Your task to perform on an android device: Go to calendar. Show me events next week Image 0: 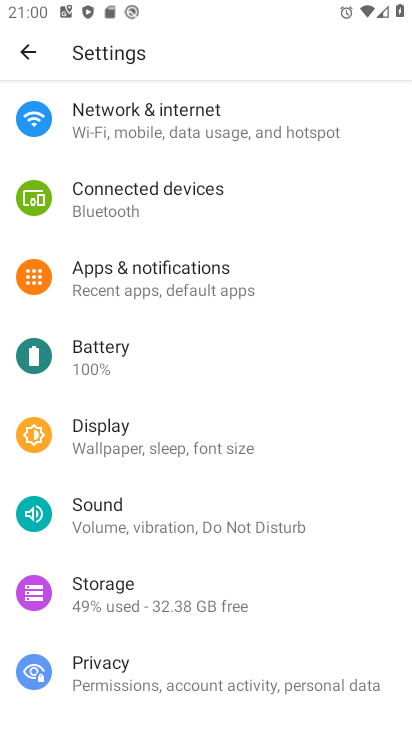
Step 0: press home button
Your task to perform on an android device: Go to calendar. Show me events next week Image 1: 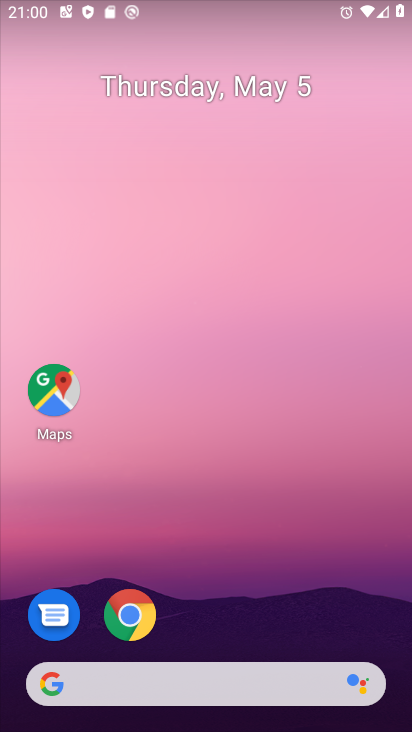
Step 1: drag from (210, 627) to (233, 7)
Your task to perform on an android device: Go to calendar. Show me events next week Image 2: 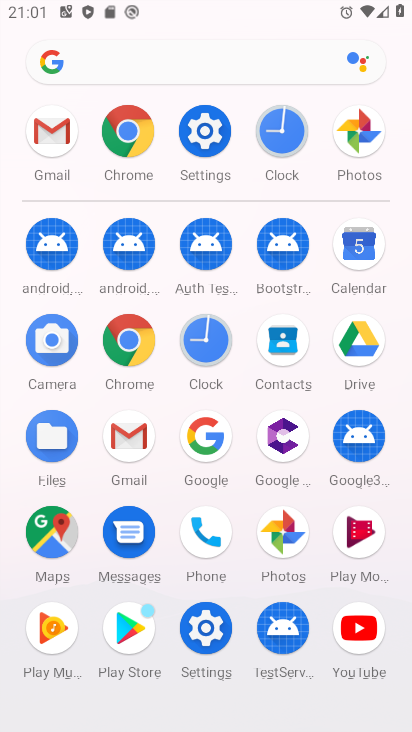
Step 2: click (363, 254)
Your task to perform on an android device: Go to calendar. Show me events next week Image 3: 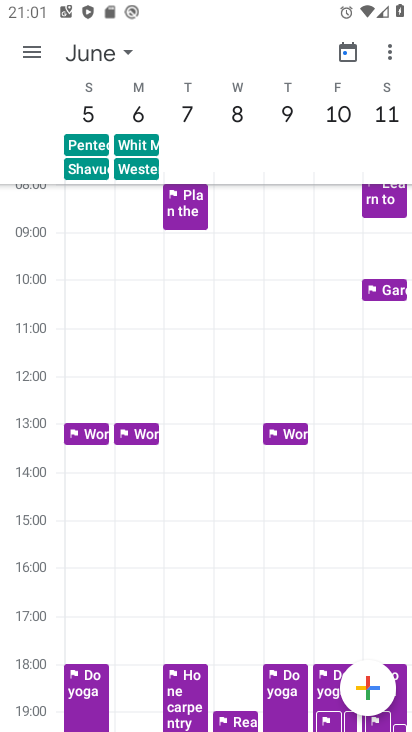
Step 3: click (106, 51)
Your task to perform on an android device: Go to calendar. Show me events next week Image 4: 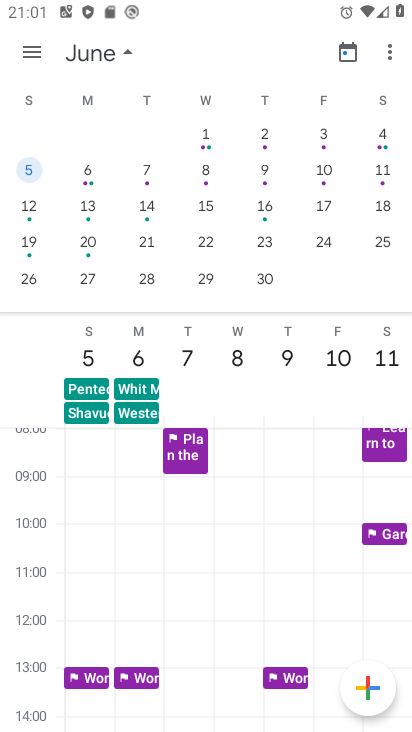
Step 4: drag from (71, 219) to (396, 288)
Your task to perform on an android device: Go to calendar. Show me events next week Image 5: 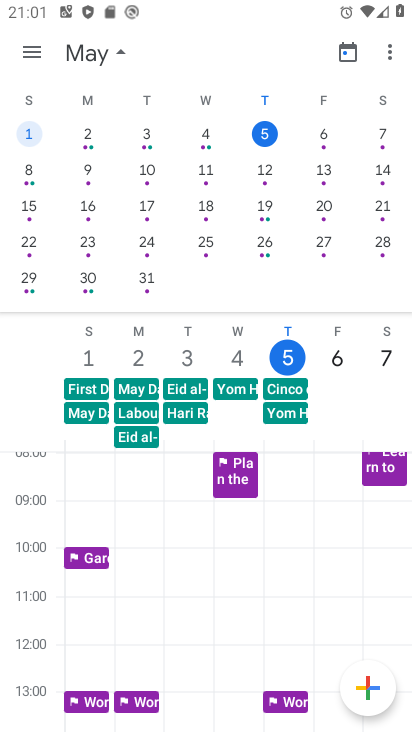
Step 5: click (31, 50)
Your task to perform on an android device: Go to calendar. Show me events next week Image 6: 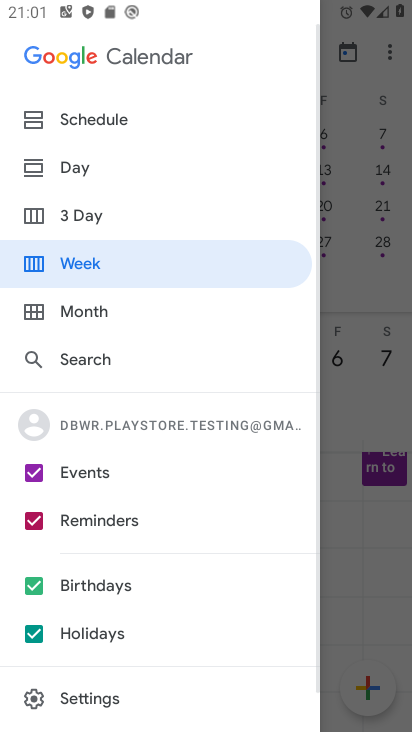
Step 6: click (100, 520)
Your task to perform on an android device: Go to calendar. Show me events next week Image 7: 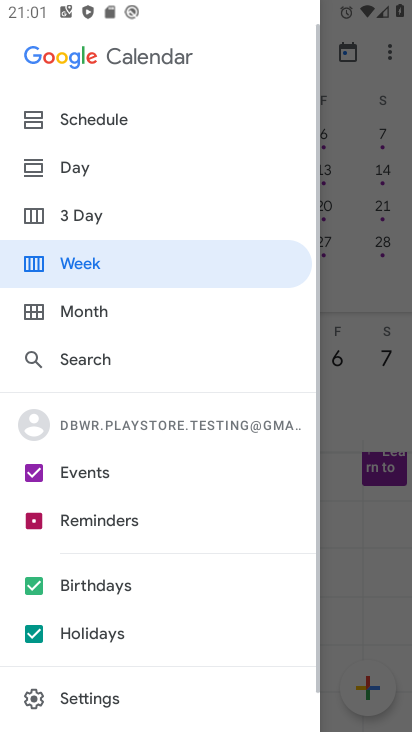
Step 7: click (76, 587)
Your task to perform on an android device: Go to calendar. Show me events next week Image 8: 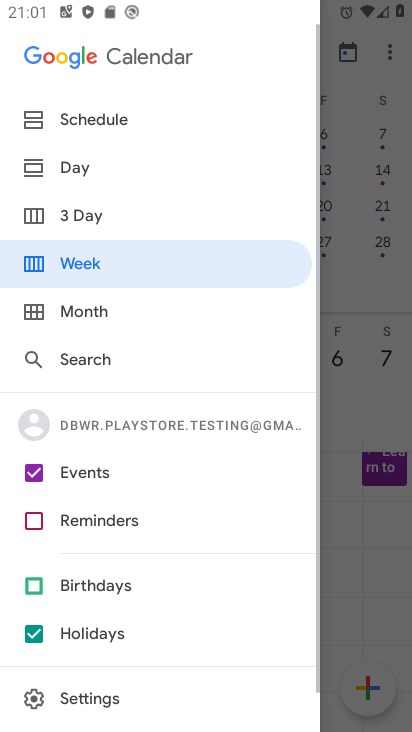
Step 8: click (83, 638)
Your task to perform on an android device: Go to calendar. Show me events next week Image 9: 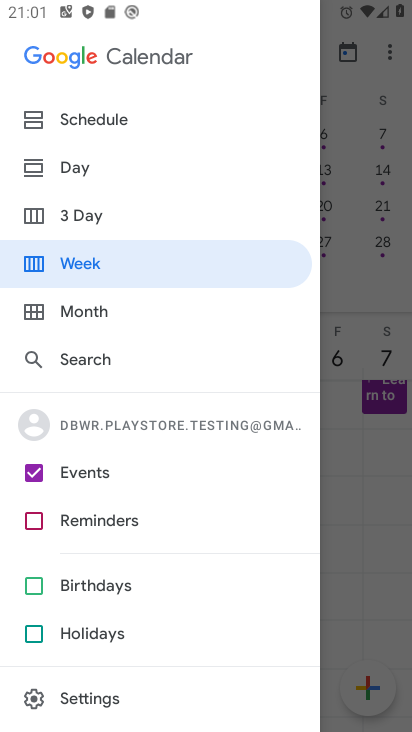
Step 9: click (152, 268)
Your task to perform on an android device: Go to calendar. Show me events next week Image 10: 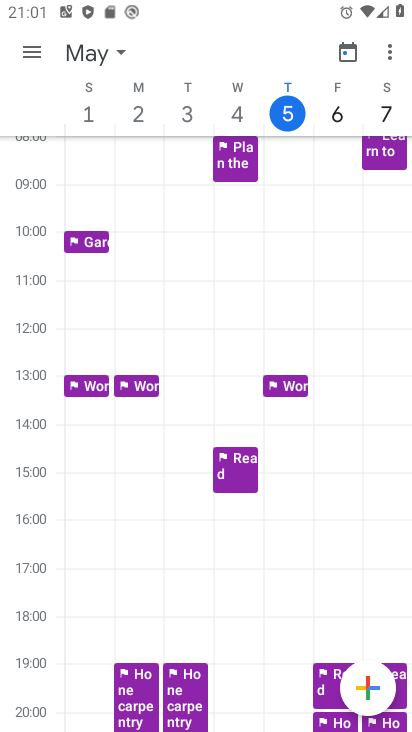
Step 10: task complete